Your task to perform on an android device: Open CNN.com Image 0: 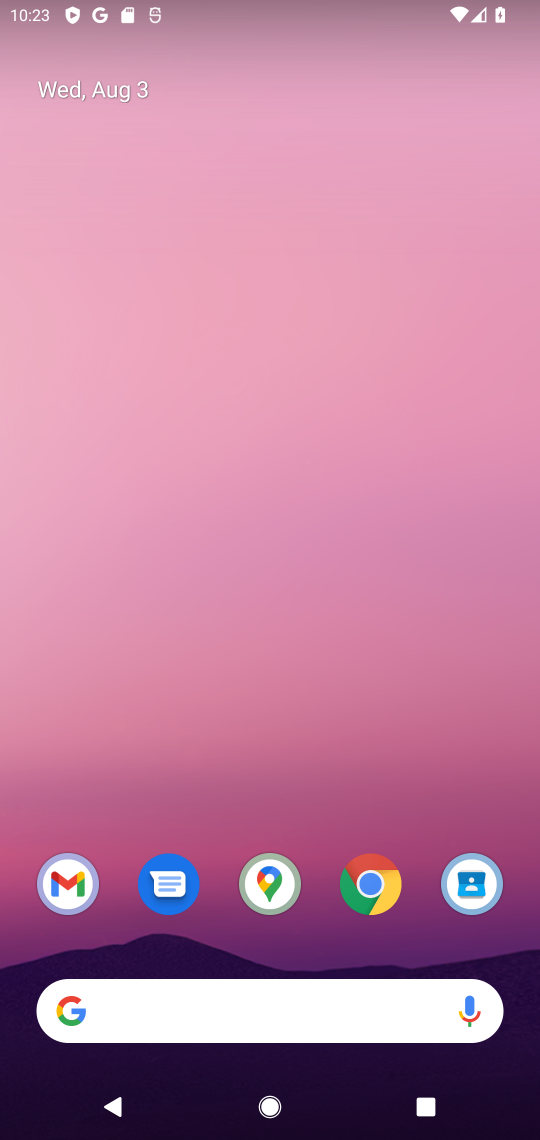
Step 0: click (68, 1009)
Your task to perform on an android device: Open CNN.com Image 1: 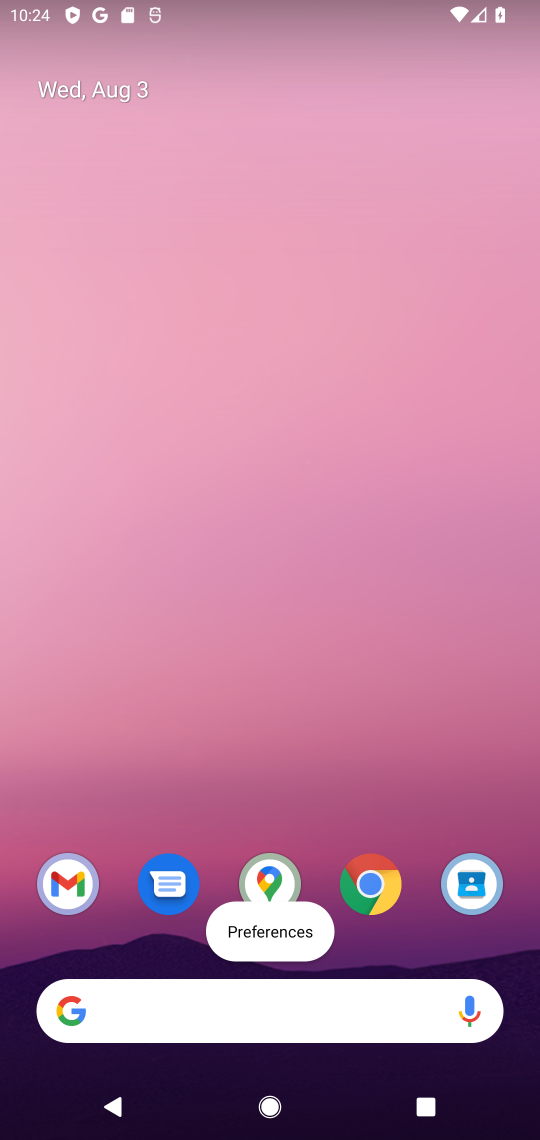
Step 1: click (87, 1001)
Your task to perform on an android device: Open CNN.com Image 2: 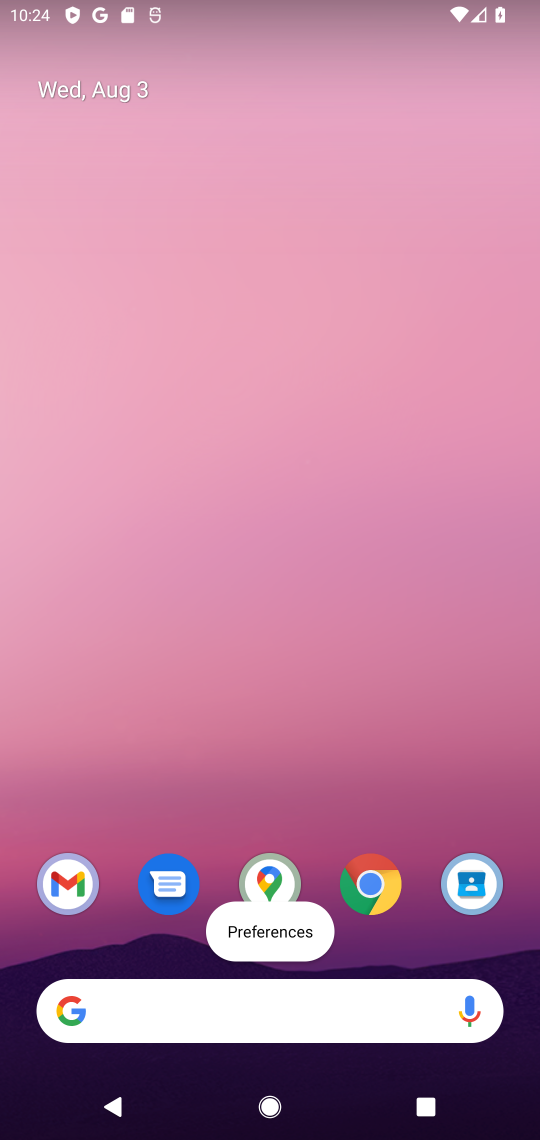
Step 2: click (54, 1003)
Your task to perform on an android device: Open CNN.com Image 3: 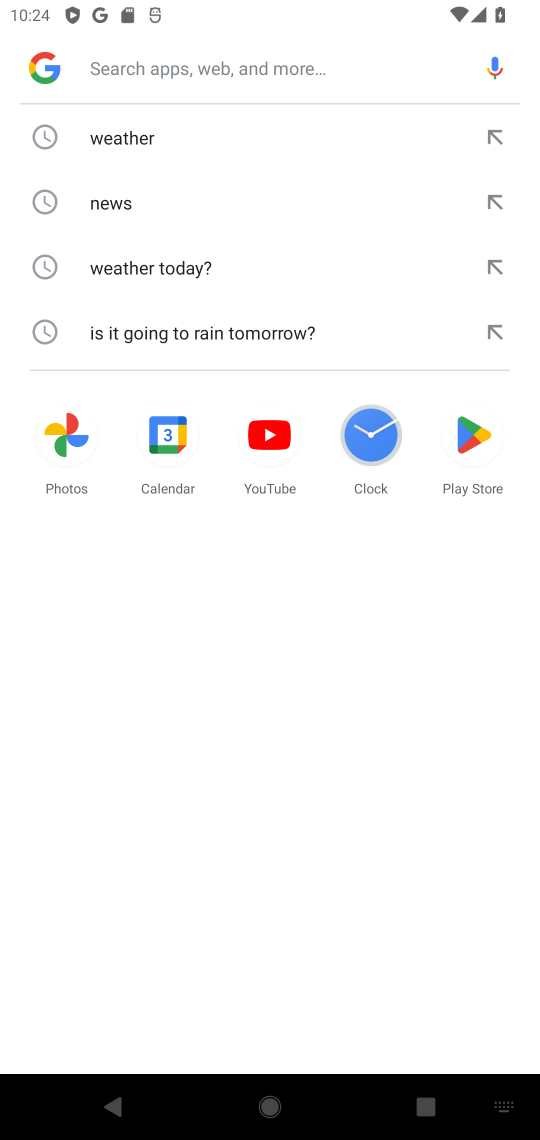
Step 3: type " CNN.com"
Your task to perform on an android device: Open CNN.com Image 4: 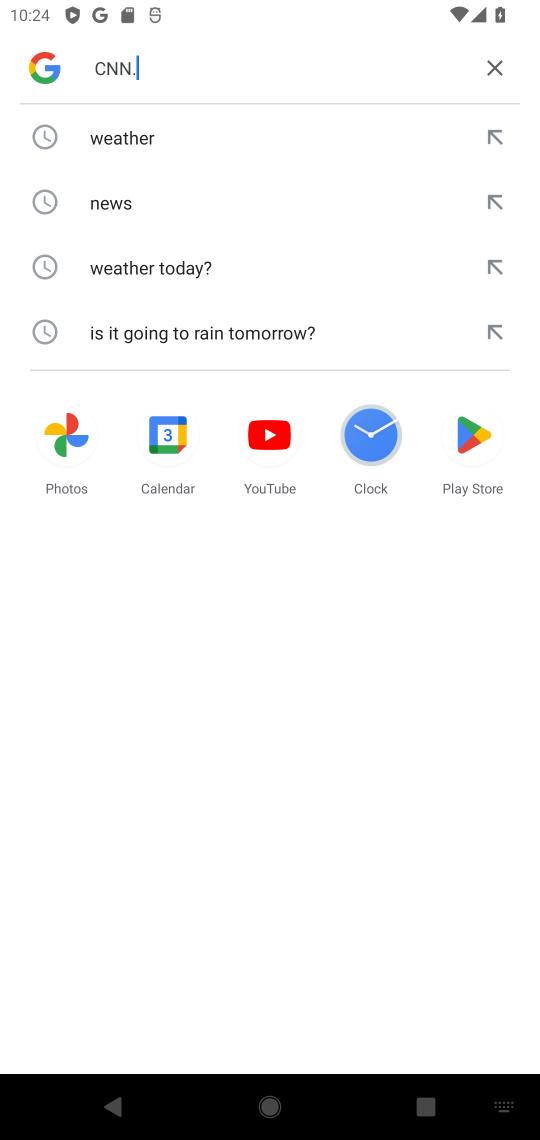
Step 4: press enter
Your task to perform on an android device: Open CNN.com Image 5: 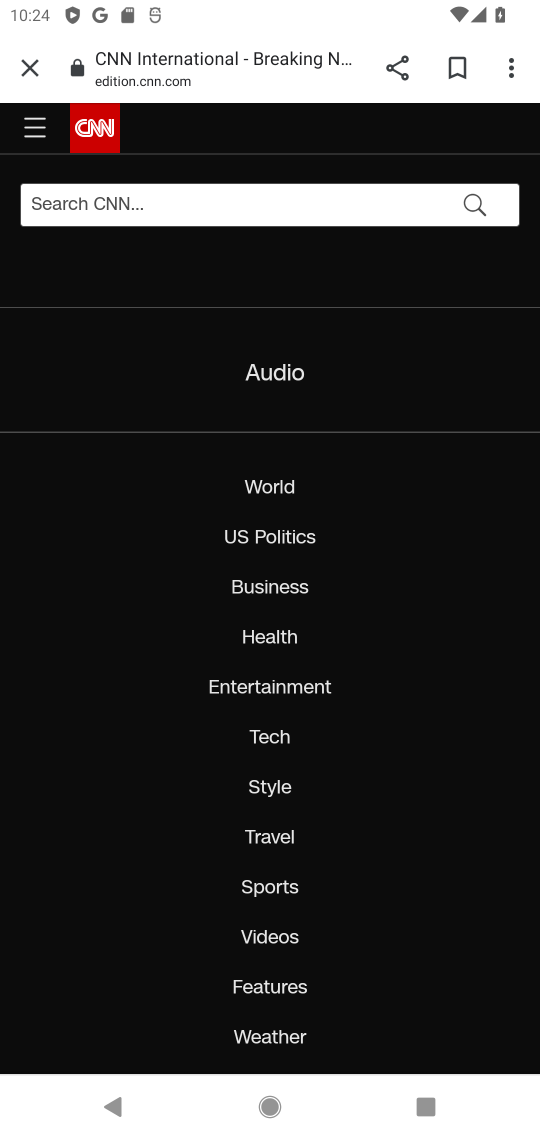
Step 5: task complete